Your task to perform on an android device: Open the calendar and show me this week's events? Image 0: 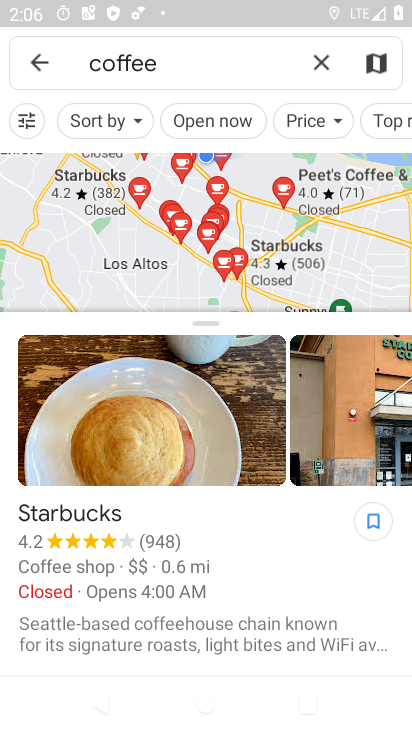
Step 0: press home button
Your task to perform on an android device: Open the calendar and show me this week's events? Image 1: 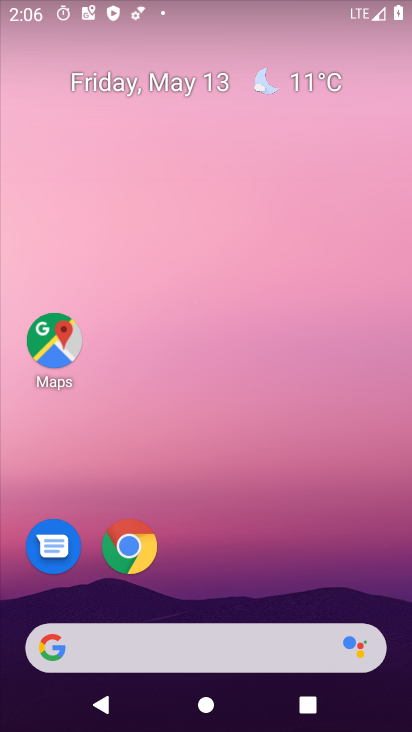
Step 1: drag from (211, 667) to (268, 216)
Your task to perform on an android device: Open the calendar and show me this week's events? Image 2: 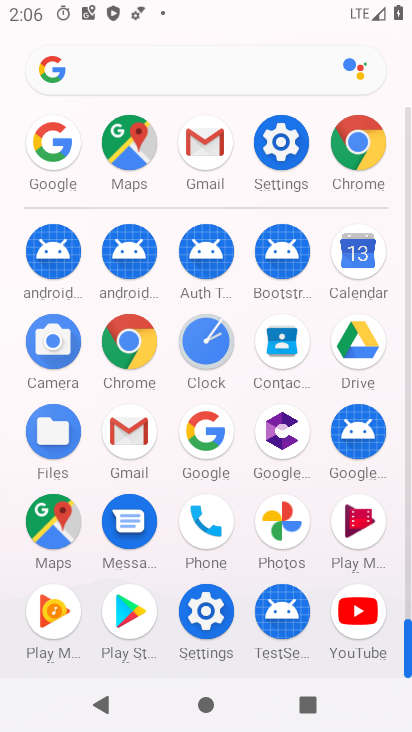
Step 2: click (355, 268)
Your task to perform on an android device: Open the calendar and show me this week's events? Image 3: 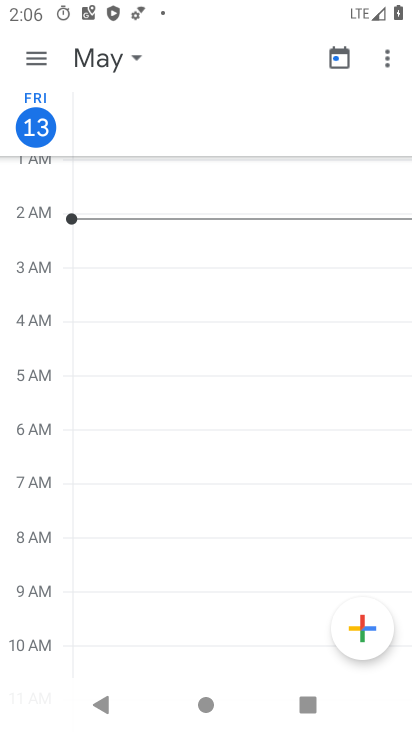
Step 3: click (121, 54)
Your task to perform on an android device: Open the calendar and show me this week's events? Image 4: 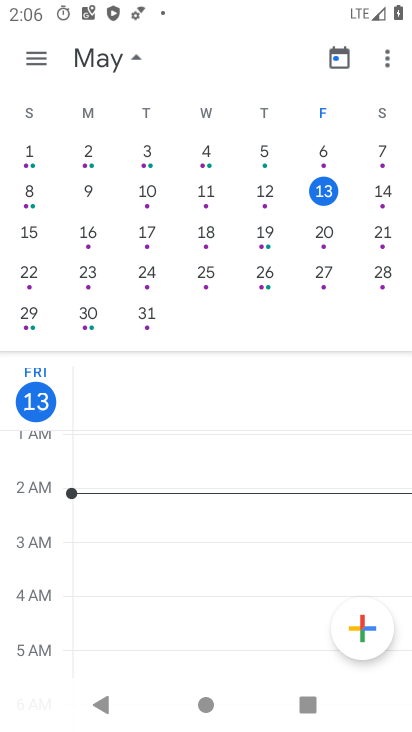
Step 4: click (47, 64)
Your task to perform on an android device: Open the calendar and show me this week's events? Image 5: 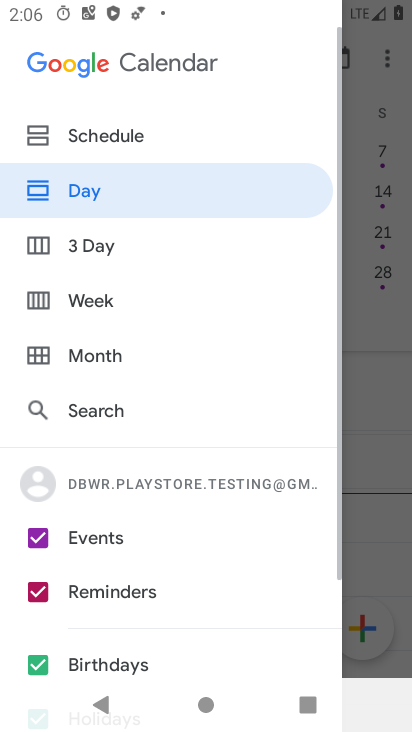
Step 5: click (135, 126)
Your task to perform on an android device: Open the calendar and show me this week's events? Image 6: 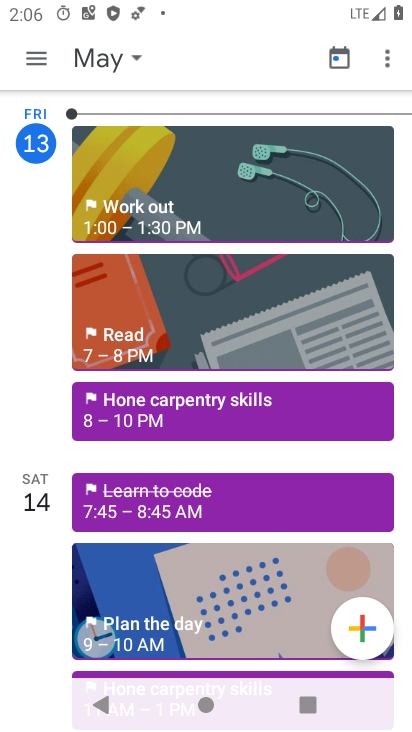
Step 6: task complete